Your task to perform on an android device: Play some music on YouTube Image 0: 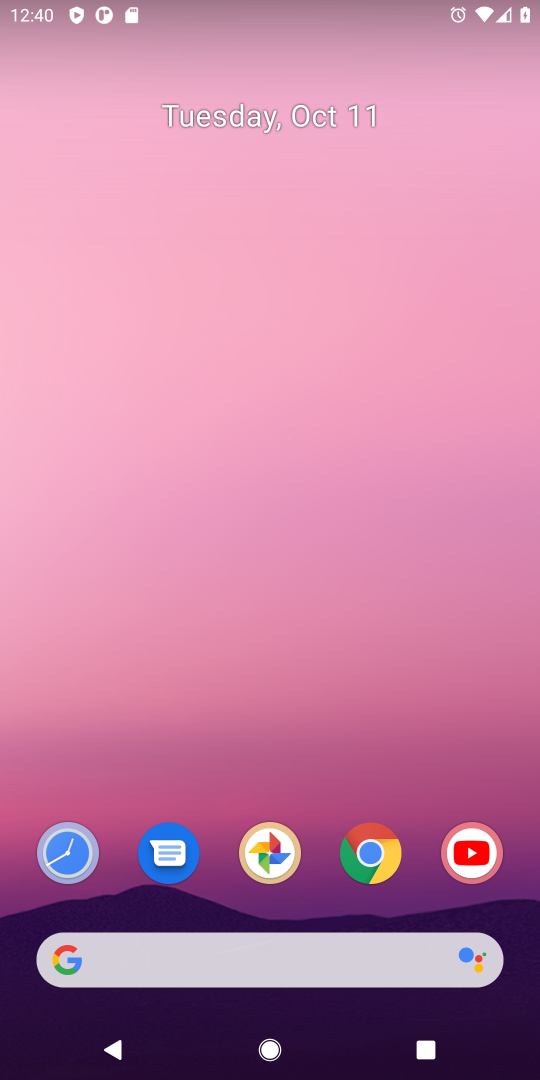
Step 0: click (481, 848)
Your task to perform on an android device: Play some music on YouTube Image 1: 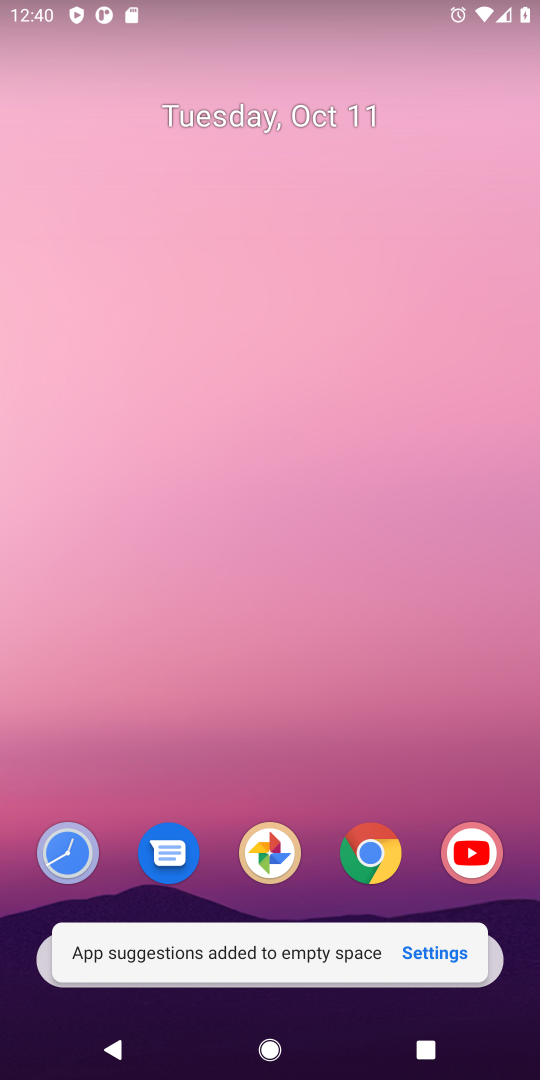
Step 1: drag from (308, 768) to (335, 9)
Your task to perform on an android device: Play some music on YouTube Image 2: 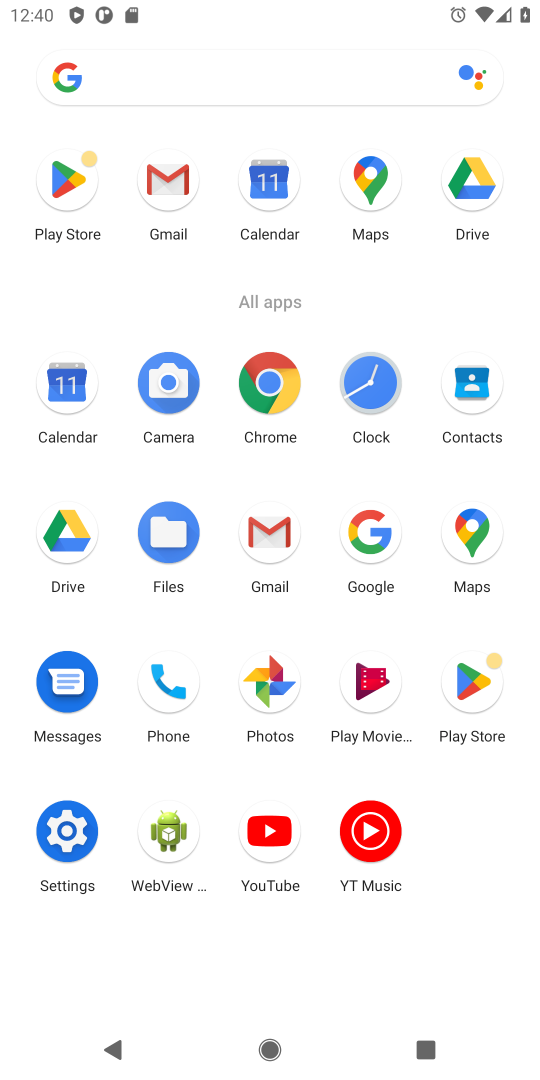
Step 2: click (272, 833)
Your task to perform on an android device: Play some music on YouTube Image 3: 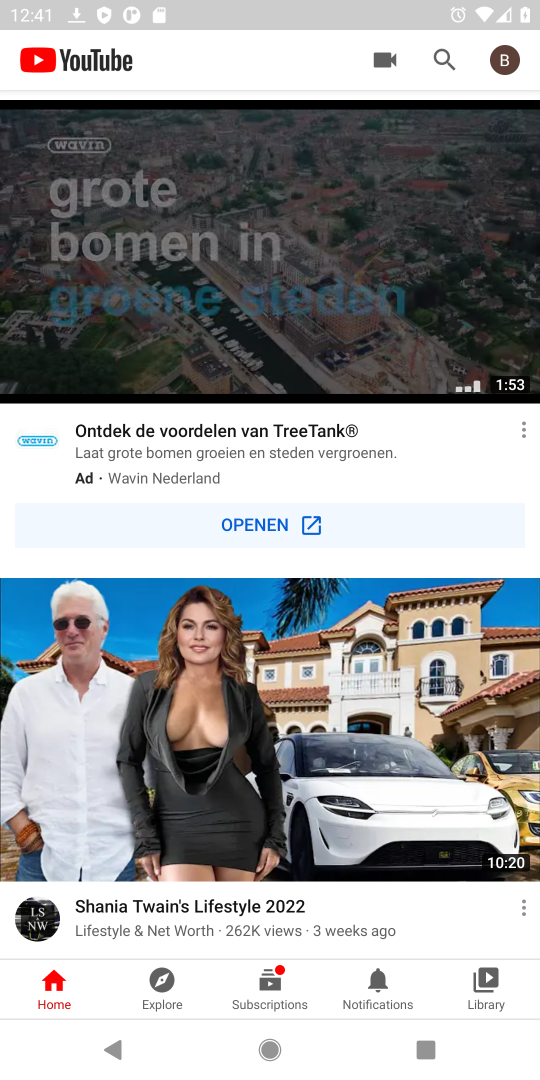
Step 3: click (439, 54)
Your task to perform on an android device: Play some music on YouTube Image 4: 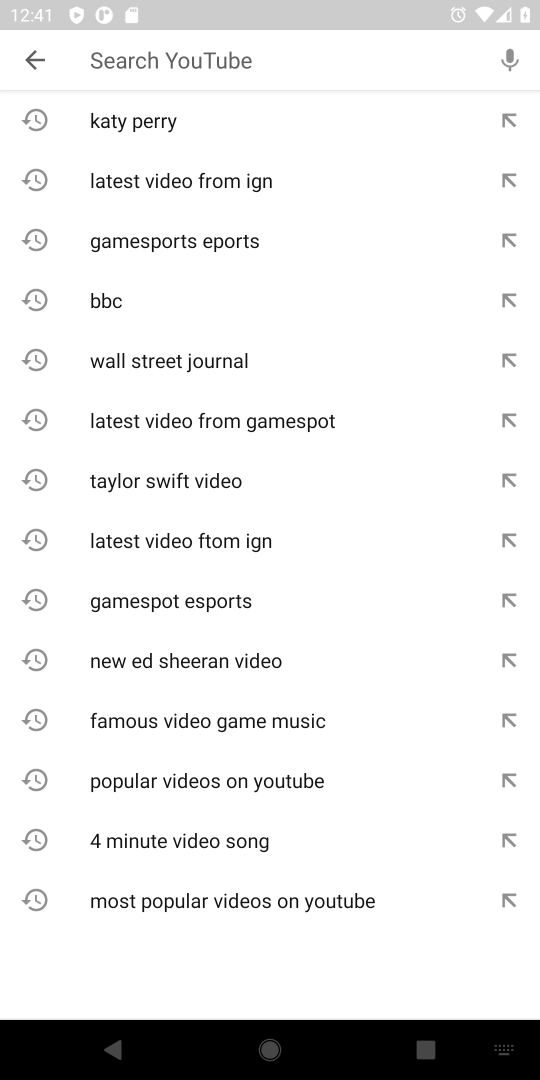
Step 4: type "latest songs"
Your task to perform on an android device: Play some music on YouTube Image 5: 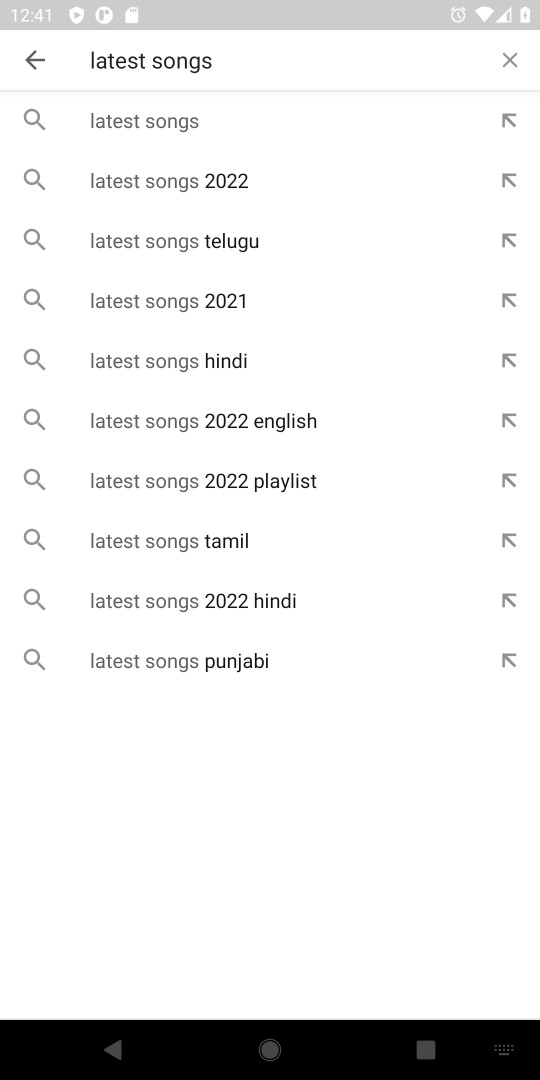
Step 5: type ""
Your task to perform on an android device: Play some music on YouTube Image 6: 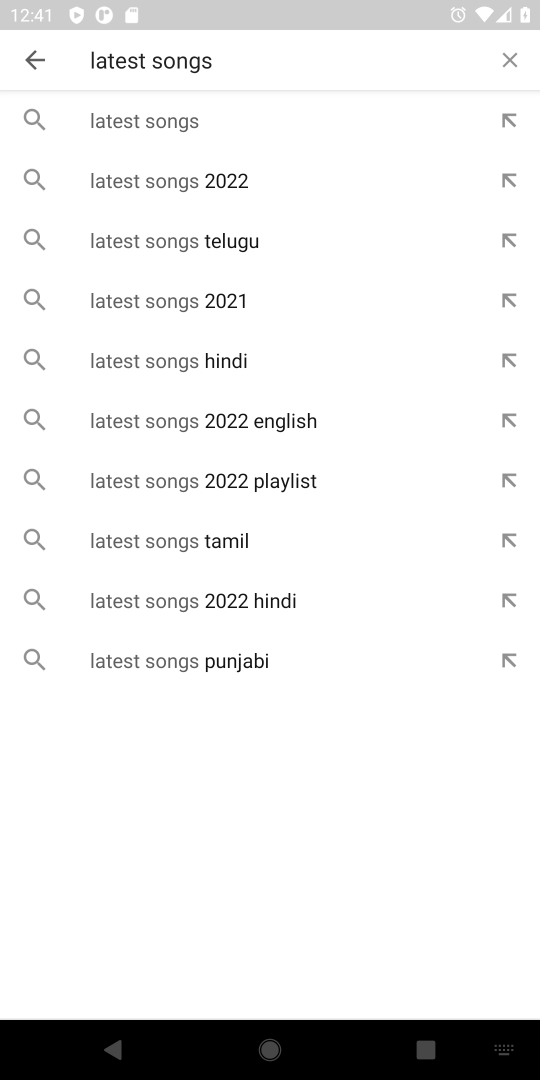
Step 6: click (219, 201)
Your task to perform on an android device: Play some music on YouTube Image 7: 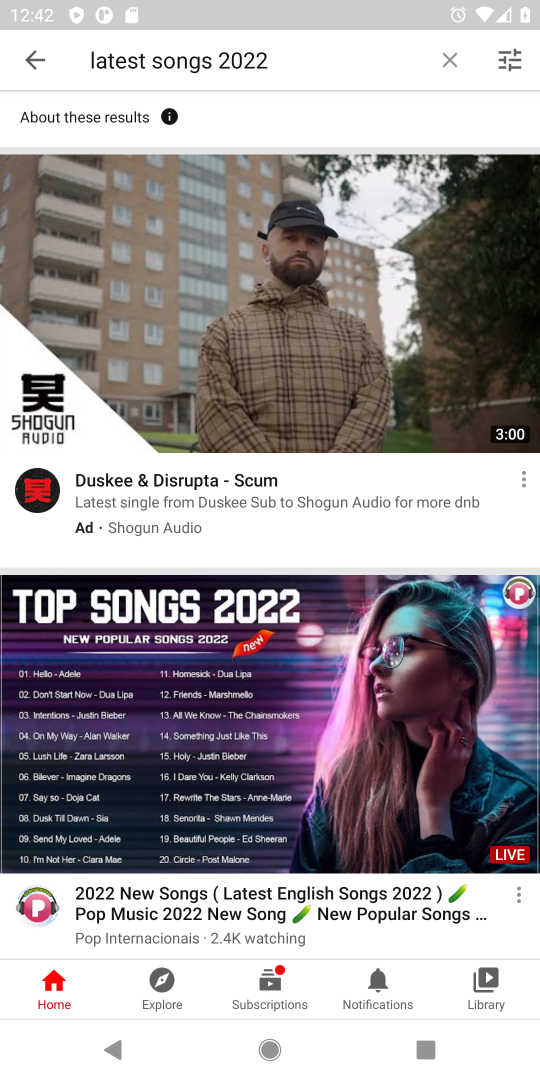
Step 7: click (229, 795)
Your task to perform on an android device: Play some music on YouTube Image 8: 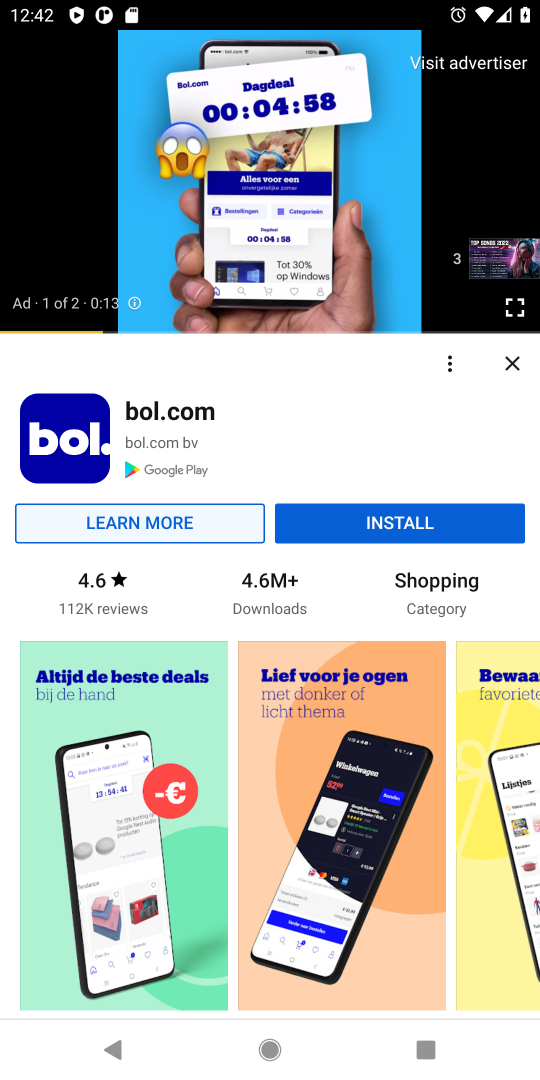
Step 8: click (526, 360)
Your task to perform on an android device: Play some music on YouTube Image 9: 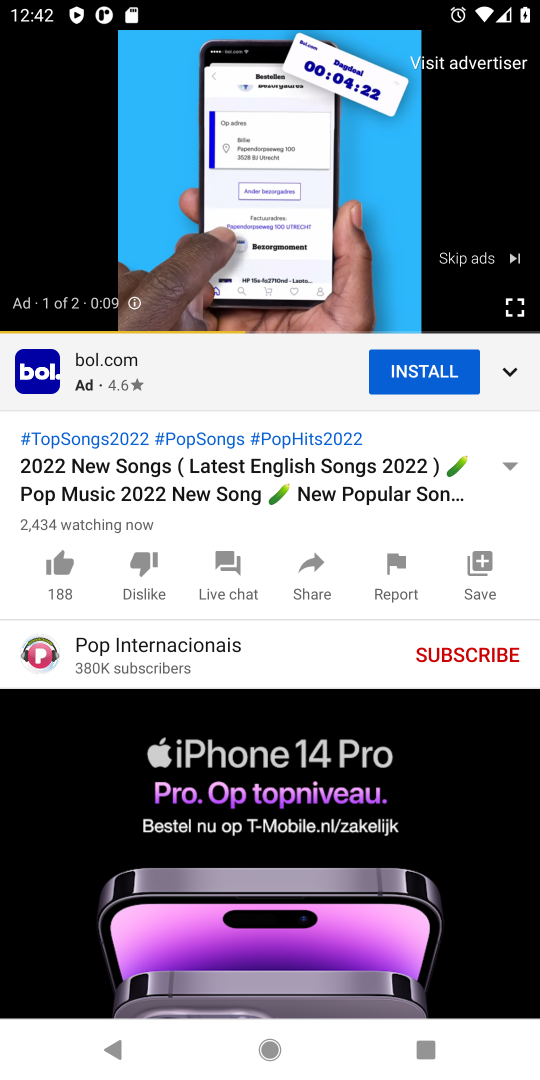
Step 9: click (449, 256)
Your task to perform on an android device: Play some music on YouTube Image 10: 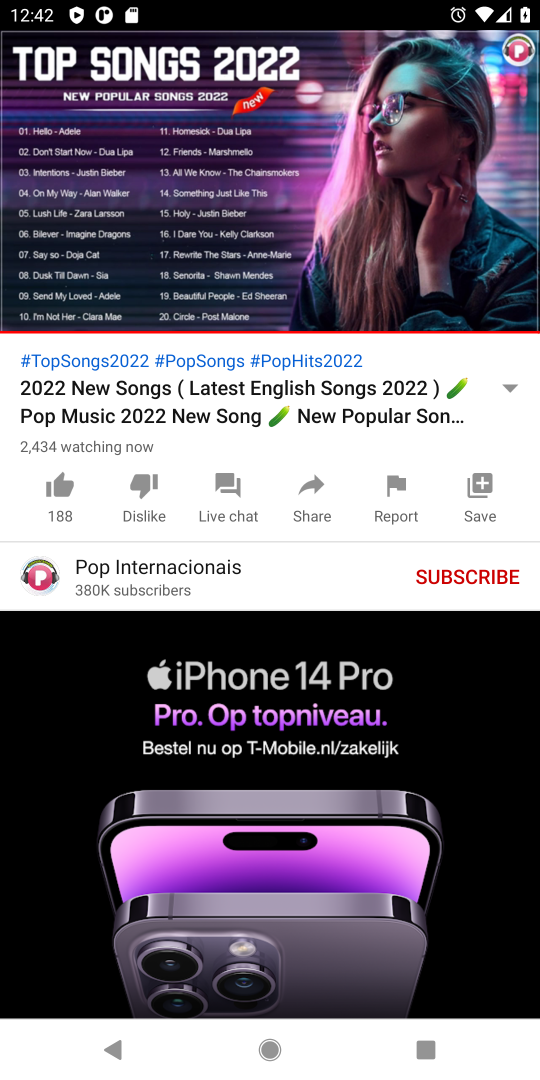
Step 10: task complete